Your task to perform on an android device: Open the web browser Image 0: 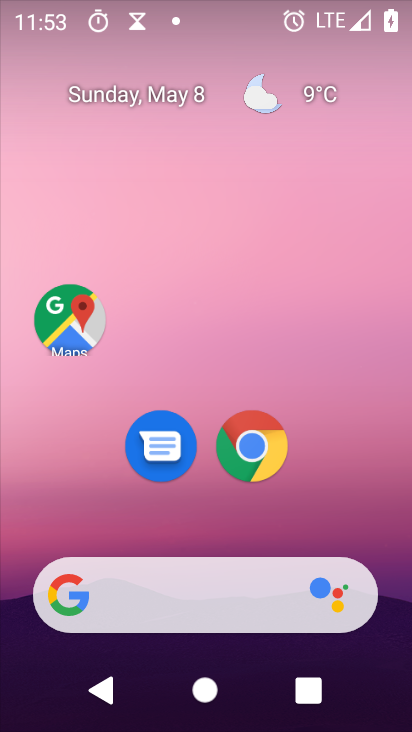
Step 0: click (259, 448)
Your task to perform on an android device: Open the web browser Image 1: 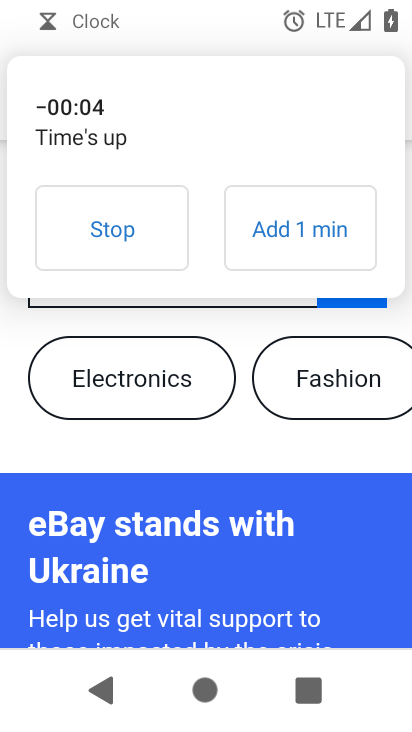
Step 1: click (119, 236)
Your task to perform on an android device: Open the web browser Image 2: 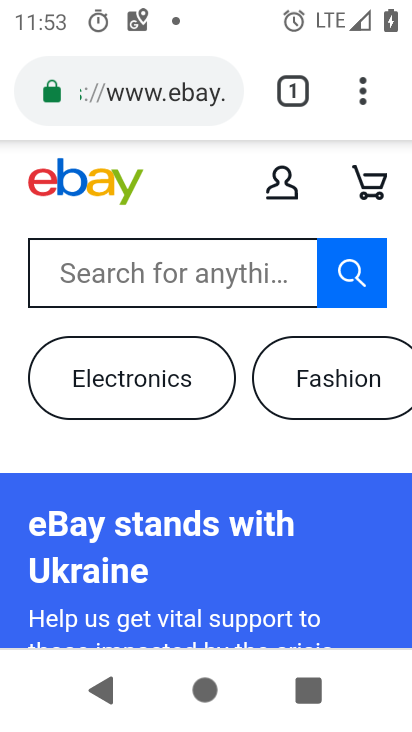
Step 2: task complete